Your task to perform on an android device: choose inbox layout in the gmail app Image 0: 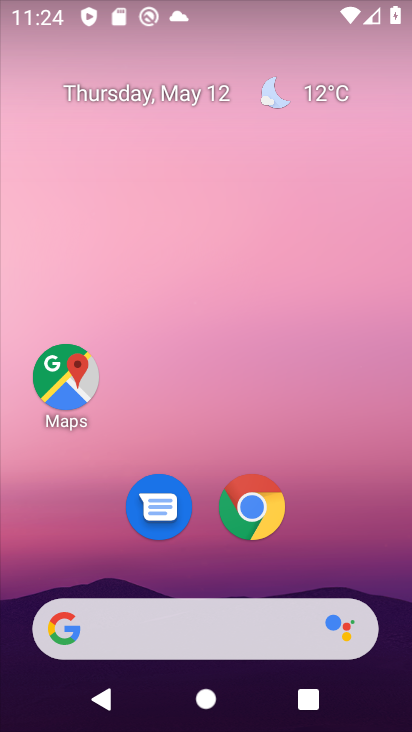
Step 0: drag from (198, 583) to (268, 0)
Your task to perform on an android device: choose inbox layout in the gmail app Image 1: 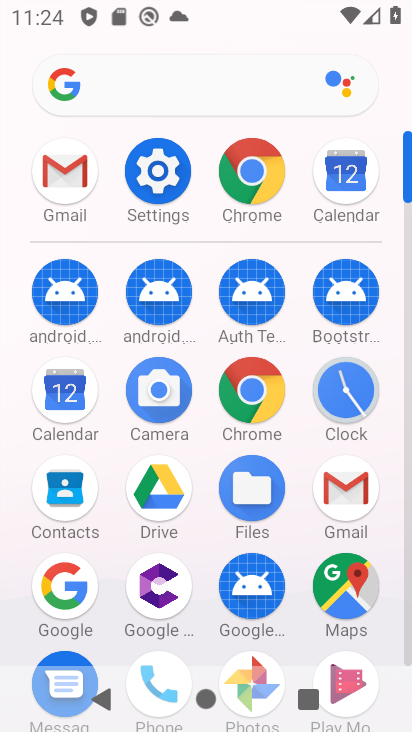
Step 1: click (357, 503)
Your task to perform on an android device: choose inbox layout in the gmail app Image 2: 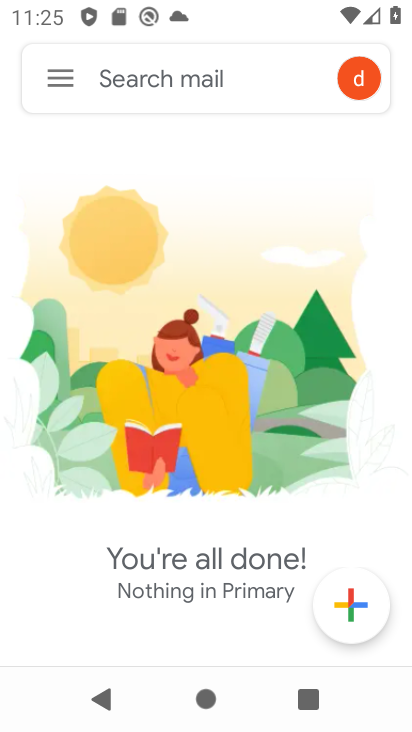
Step 2: click (59, 78)
Your task to perform on an android device: choose inbox layout in the gmail app Image 3: 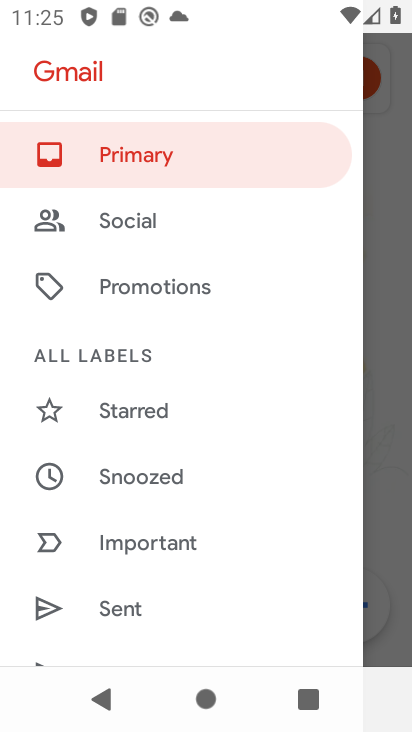
Step 3: drag from (147, 540) to (192, 218)
Your task to perform on an android device: choose inbox layout in the gmail app Image 4: 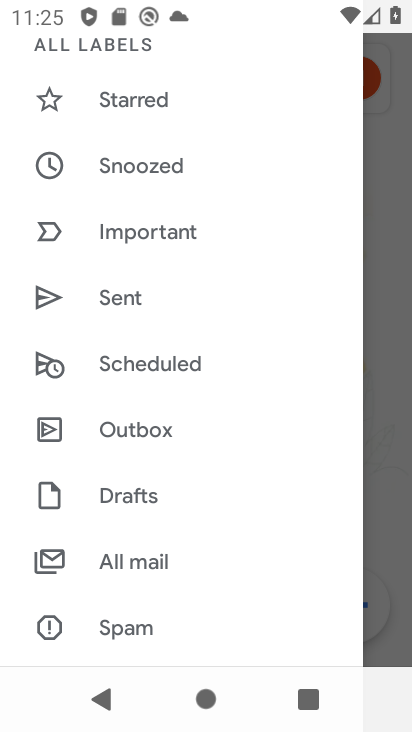
Step 4: drag from (151, 565) to (207, 146)
Your task to perform on an android device: choose inbox layout in the gmail app Image 5: 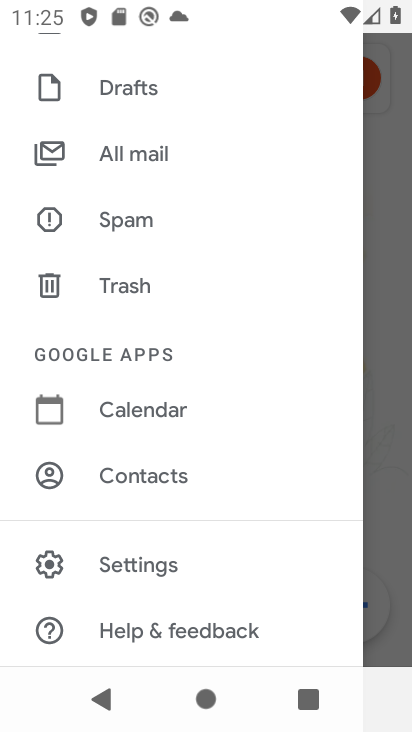
Step 5: click (138, 572)
Your task to perform on an android device: choose inbox layout in the gmail app Image 6: 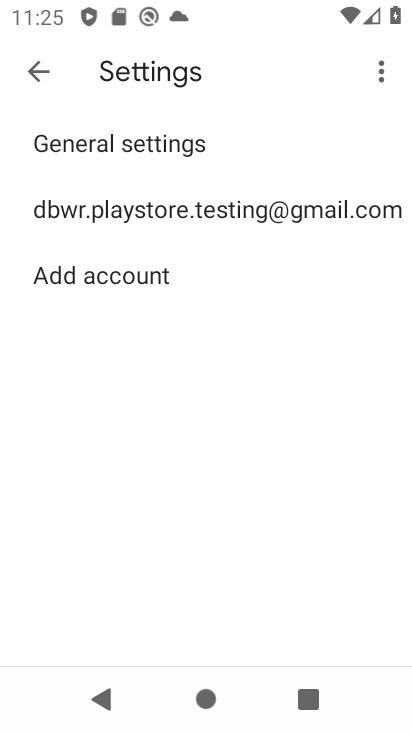
Step 6: click (159, 212)
Your task to perform on an android device: choose inbox layout in the gmail app Image 7: 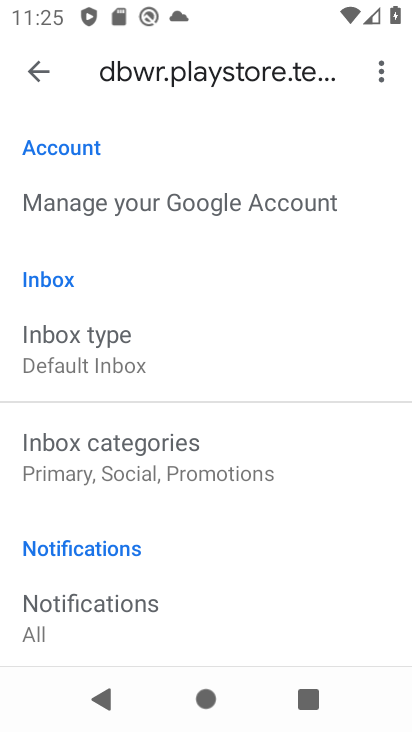
Step 7: click (111, 369)
Your task to perform on an android device: choose inbox layout in the gmail app Image 8: 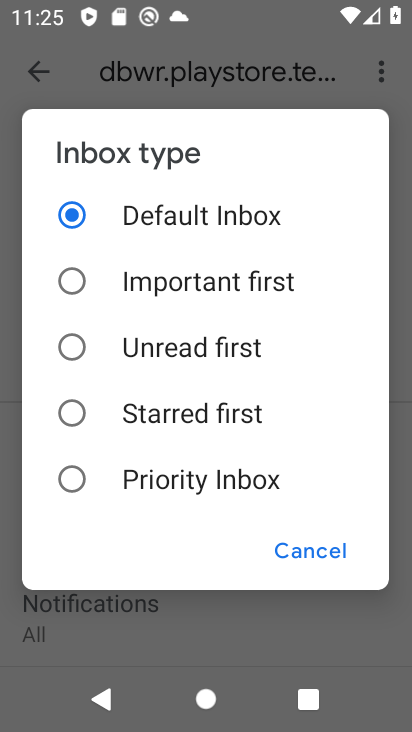
Step 8: click (75, 287)
Your task to perform on an android device: choose inbox layout in the gmail app Image 9: 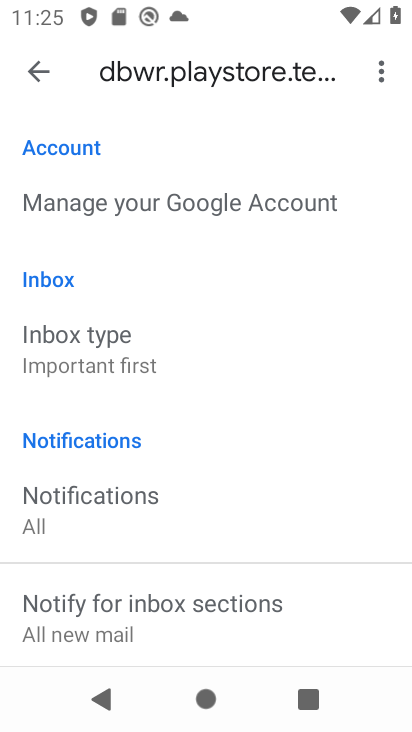
Step 9: task complete